Your task to perform on an android device: Go to notification settings Image 0: 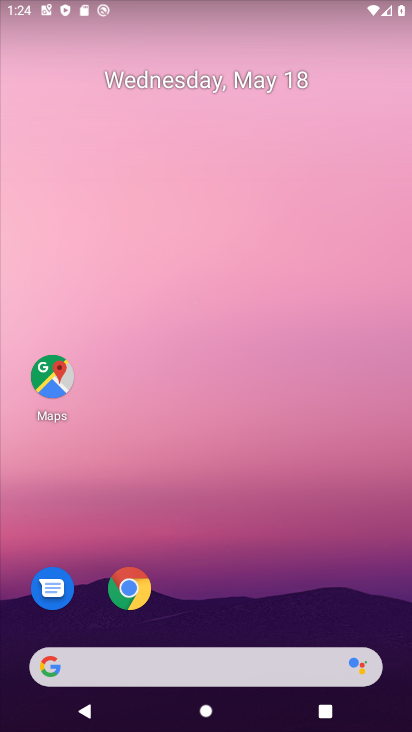
Step 0: drag from (335, 579) to (303, 94)
Your task to perform on an android device: Go to notification settings Image 1: 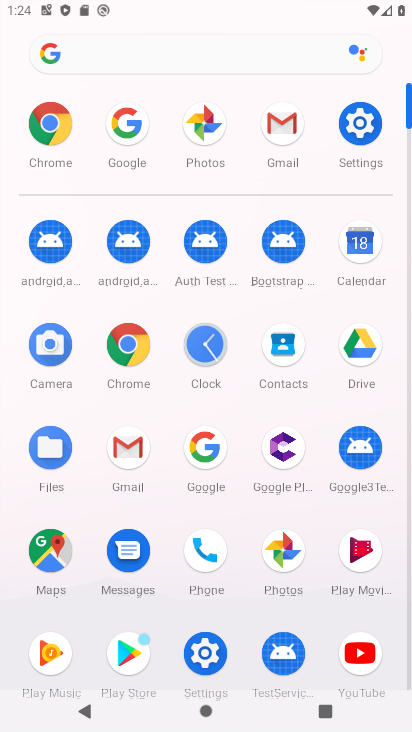
Step 1: click (349, 120)
Your task to perform on an android device: Go to notification settings Image 2: 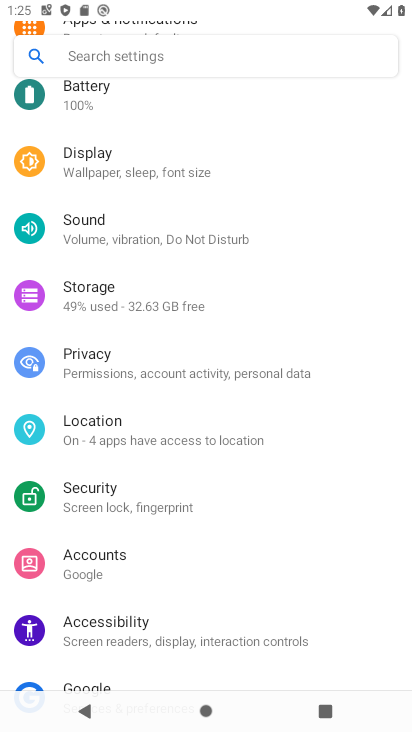
Step 2: drag from (317, 524) to (315, 303)
Your task to perform on an android device: Go to notification settings Image 3: 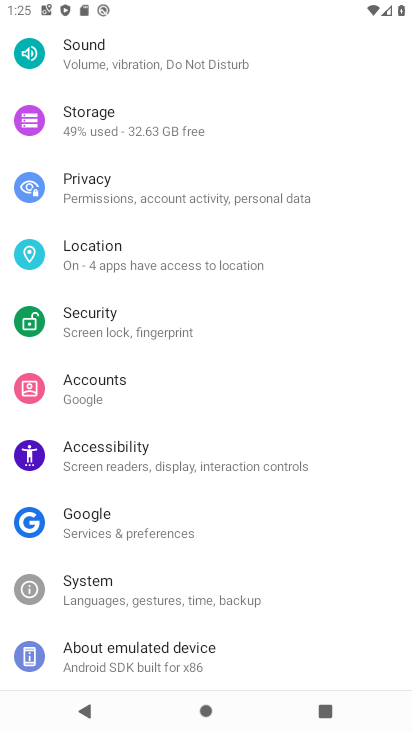
Step 3: drag from (311, 560) to (326, 303)
Your task to perform on an android device: Go to notification settings Image 4: 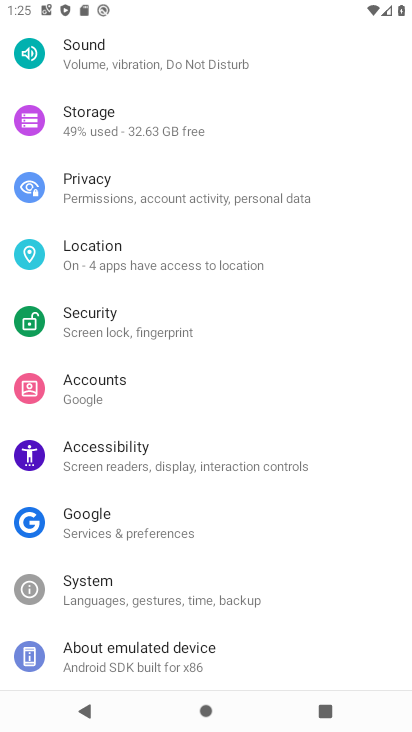
Step 4: drag from (343, 242) to (337, 436)
Your task to perform on an android device: Go to notification settings Image 5: 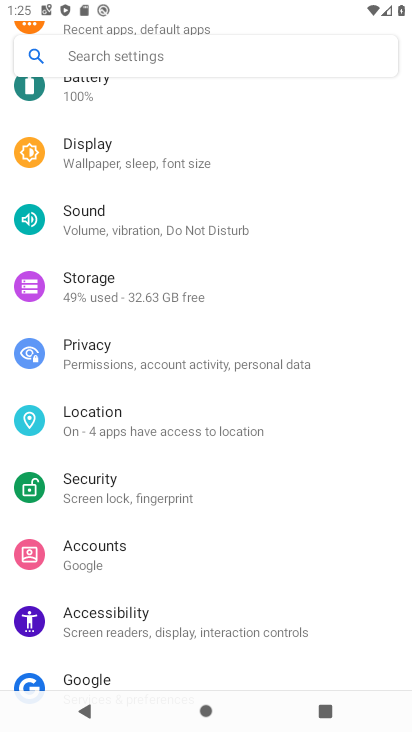
Step 5: drag from (334, 235) to (336, 420)
Your task to perform on an android device: Go to notification settings Image 6: 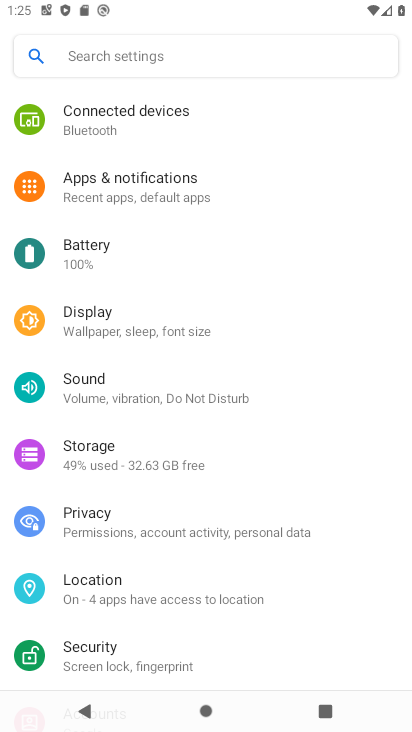
Step 6: drag from (319, 197) to (318, 411)
Your task to perform on an android device: Go to notification settings Image 7: 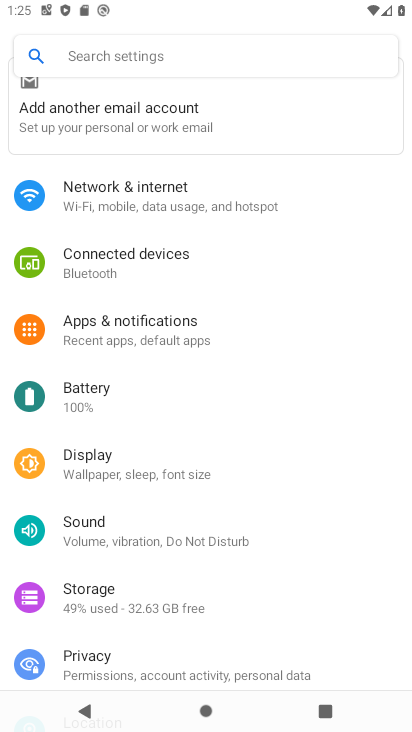
Step 7: drag from (340, 244) to (316, 413)
Your task to perform on an android device: Go to notification settings Image 8: 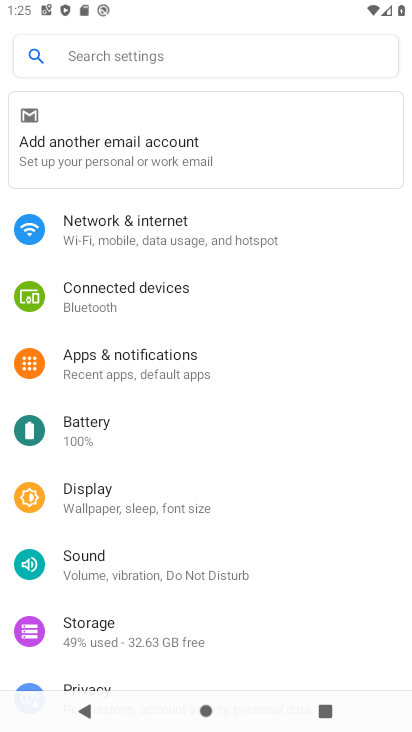
Step 8: click (188, 374)
Your task to perform on an android device: Go to notification settings Image 9: 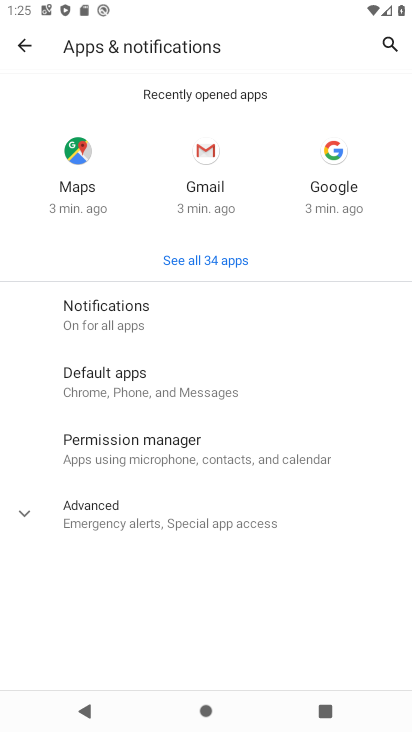
Step 9: click (113, 311)
Your task to perform on an android device: Go to notification settings Image 10: 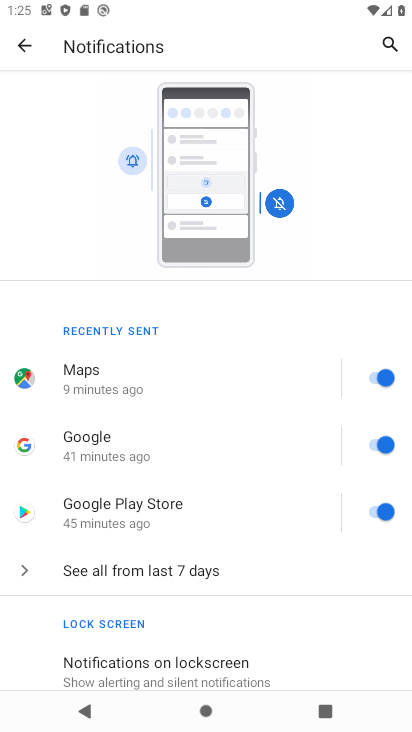
Step 10: task complete